Your task to perform on an android device: Open the clock Image 0: 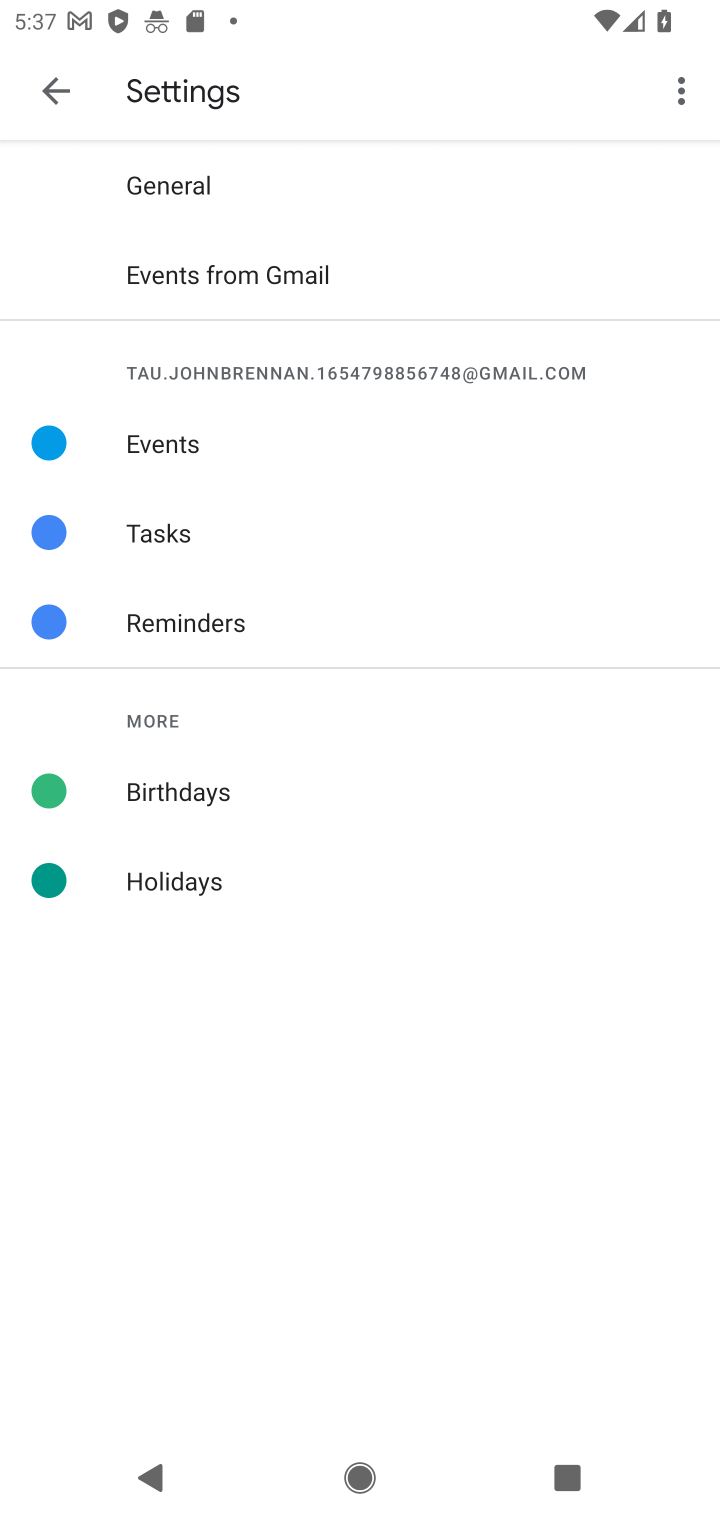
Step 0: press home button
Your task to perform on an android device: Open the clock Image 1: 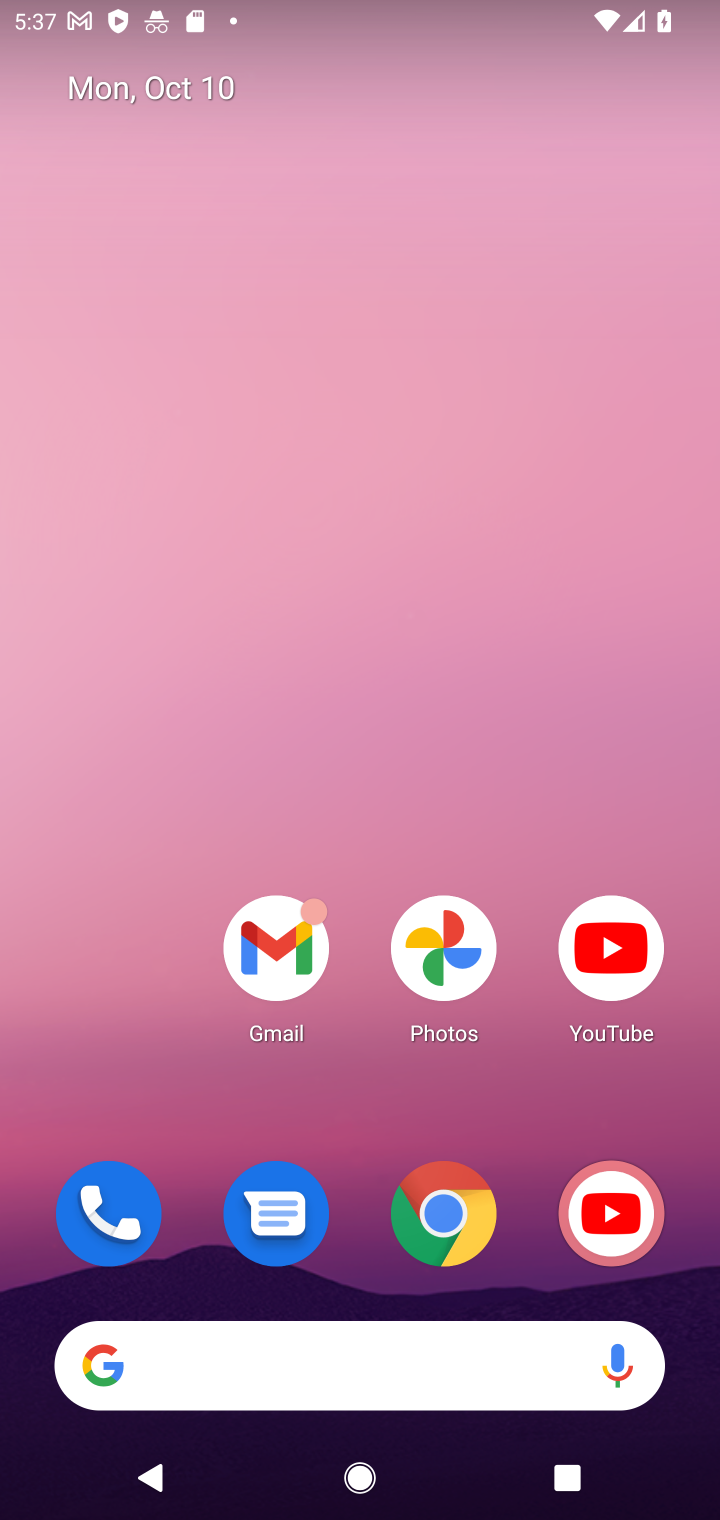
Step 1: drag from (273, 1158) to (451, 8)
Your task to perform on an android device: Open the clock Image 2: 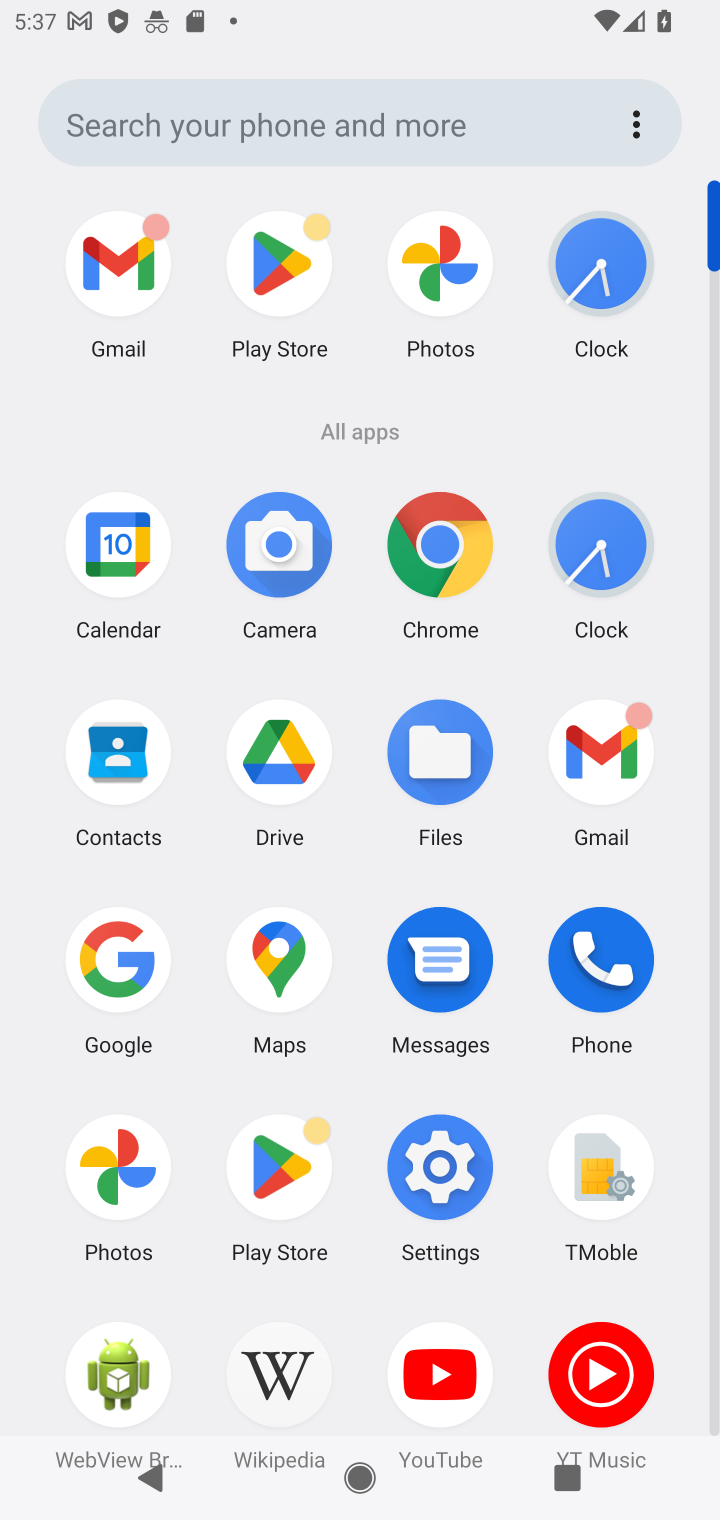
Step 2: click (637, 563)
Your task to perform on an android device: Open the clock Image 3: 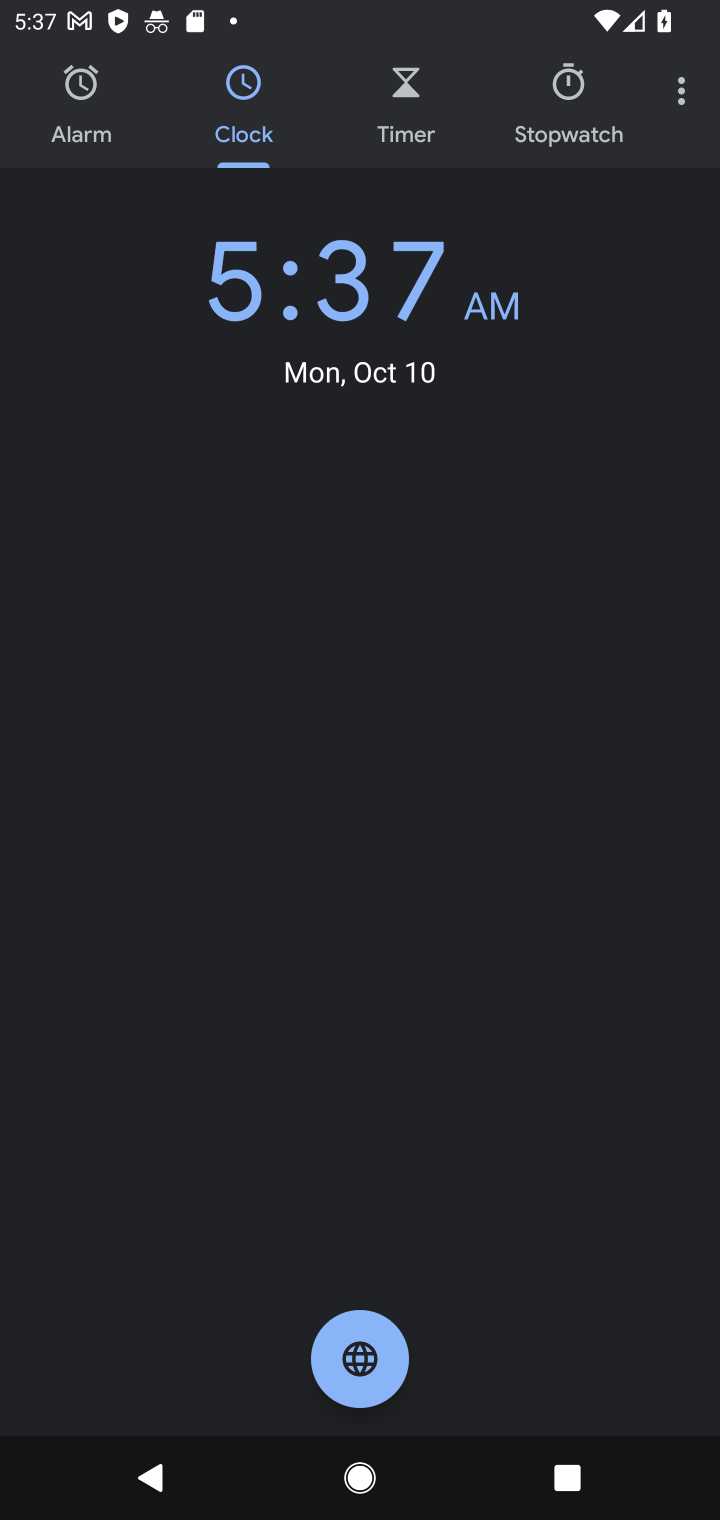
Step 3: task complete